Your task to perform on an android device: clear history in the chrome app Image 0: 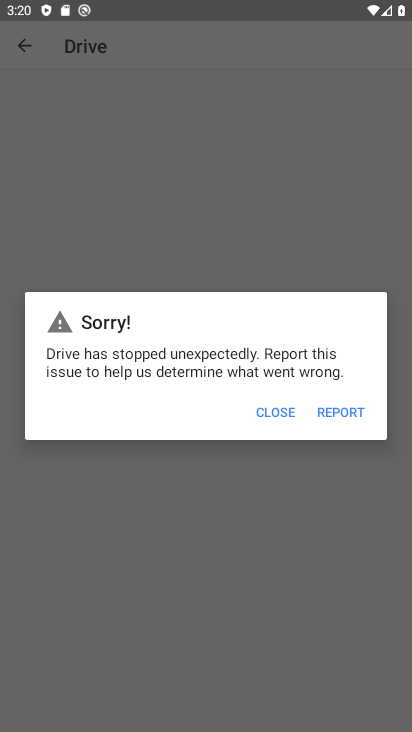
Step 0: press home button
Your task to perform on an android device: clear history in the chrome app Image 1: 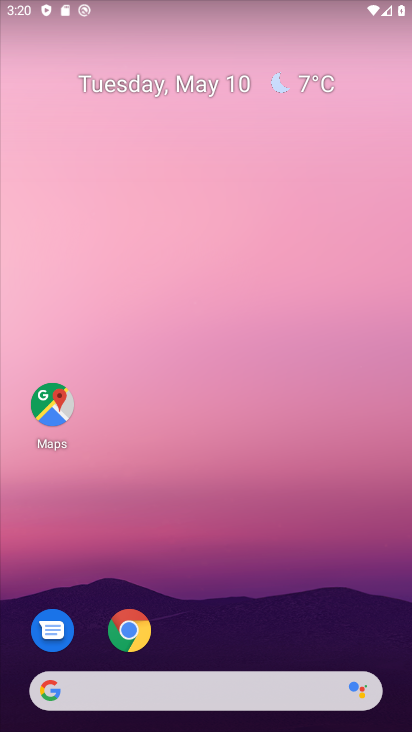
Step 1: click (132, 639)
Your task to perform on an android device: clear history in the chrome app Image 2: 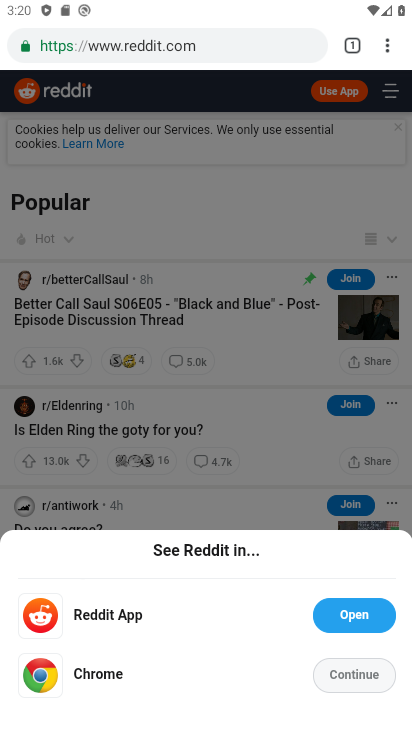
Step 2: click (392, 50)
Your task to perform on an android device: clear history in the chrome app Image 3: 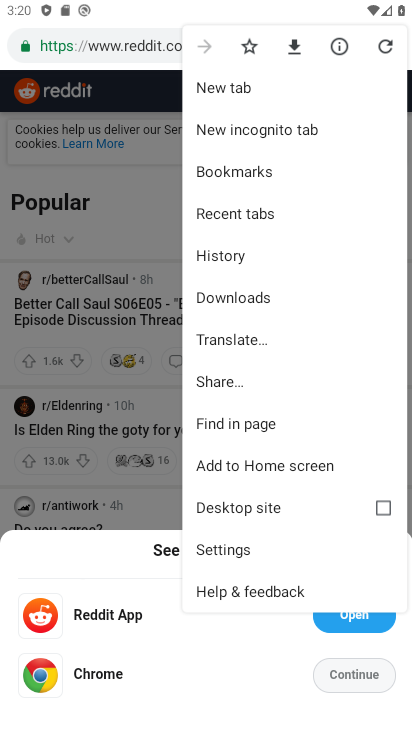
Step 3: click (249, 263)
Your task to perform on an android device: clear history in the chrome app Image 4: 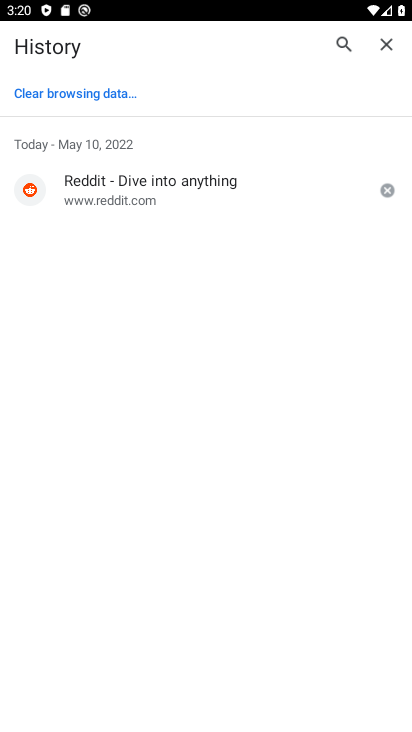
Step 4: click (118, 98)
Your task to perform on an android device: clear history in the chrome app Image 5: 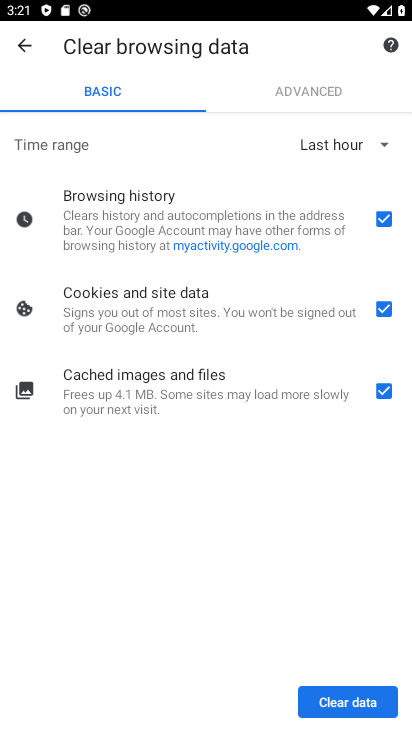
Step 5: click (340, 714)
Your task to perform on an android device: clear history in the chrome app Image 6: 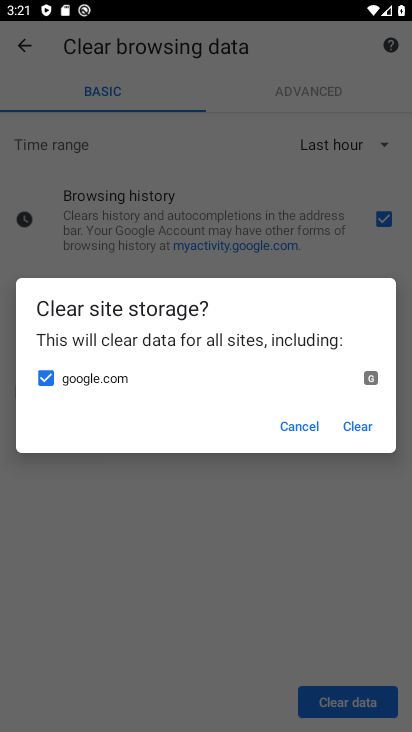
Step 6: click (372, 433)
Your task to perform on an android device: clear history in the chrome app Image 7: 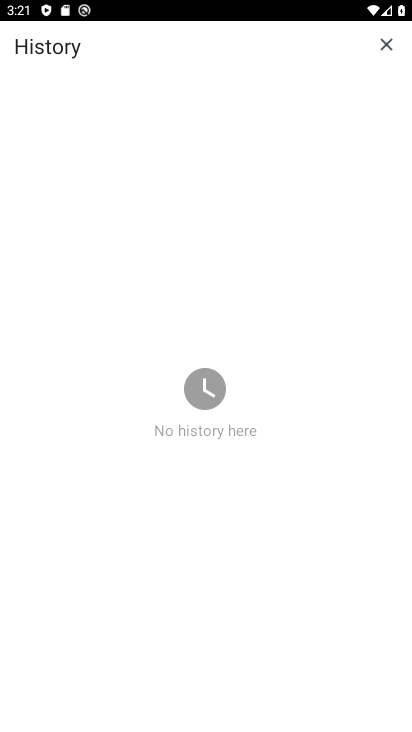
Step 7: task complete